Your task to perform on an android device: delete location history Image 0: 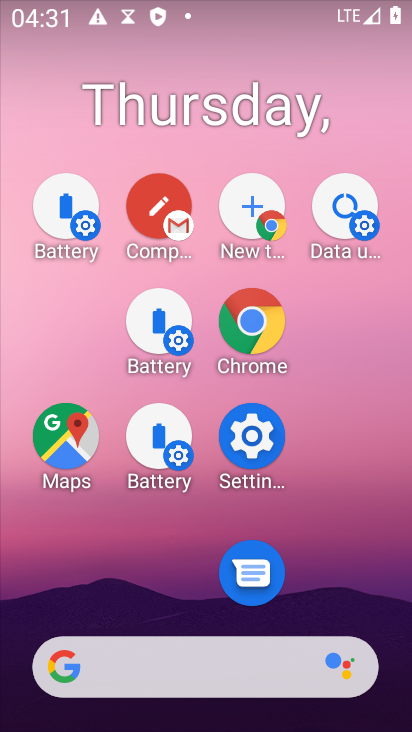
Step 0: drag from (242, 719) to (188, 140)
Your task to perform on an android device: delete location history Image 1: 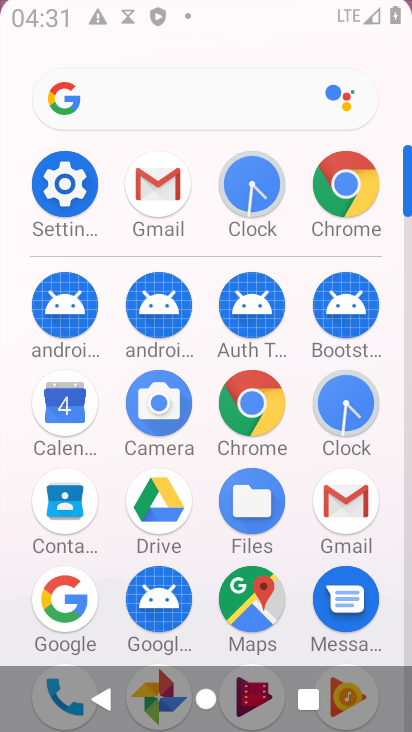
Step 1: drag from (235, 616) to (204, 232)
Your task to perform on an android device: delete location history Image 2: 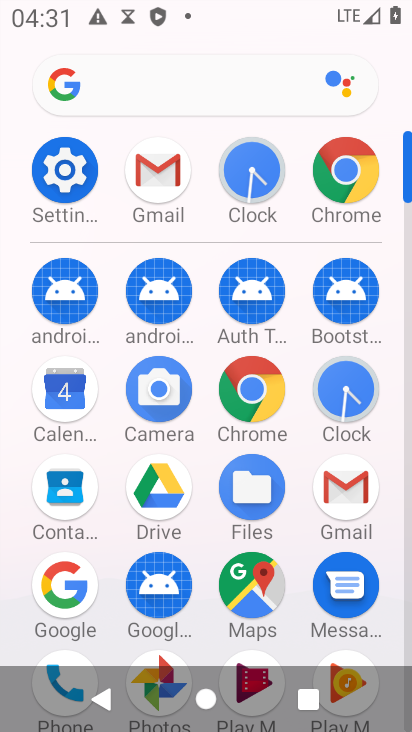
Step 2: drag from (289, 536) to (244, 173)
Your task to perform on an android device: delete location history Image 3: 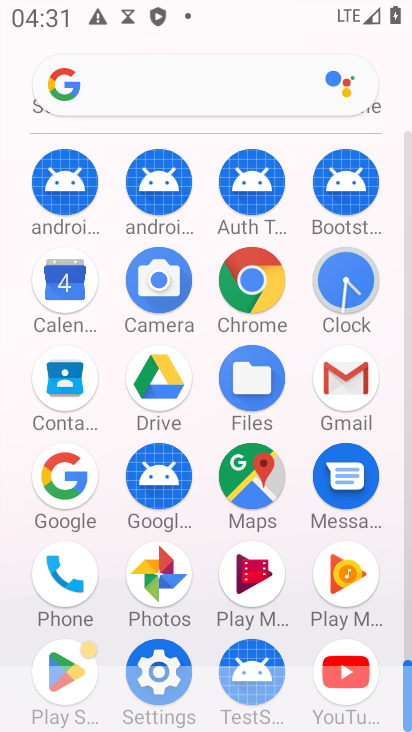
Step 3: click (155, 648)
Your task to perform on an android device: delete location history Image 4: 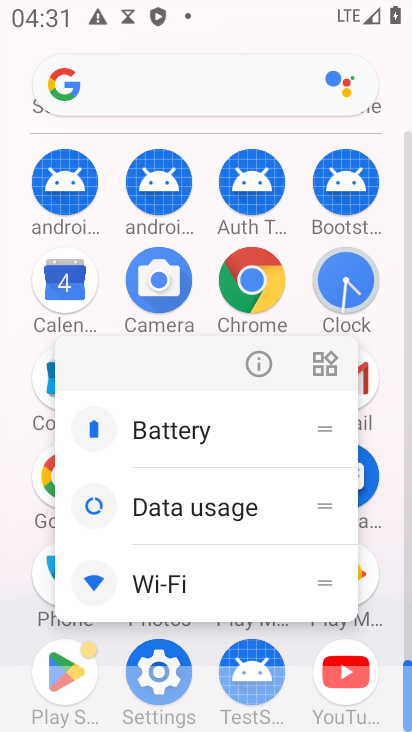
Step 4: click (156, 646)
Your task to perform on an android device: delete location history Image 5: 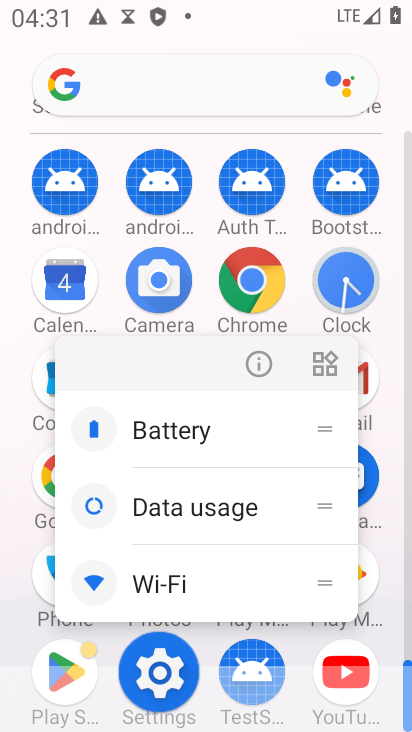
Step 5: click (163, 648)
Your task to perform on an android device: delete location history Image 6: 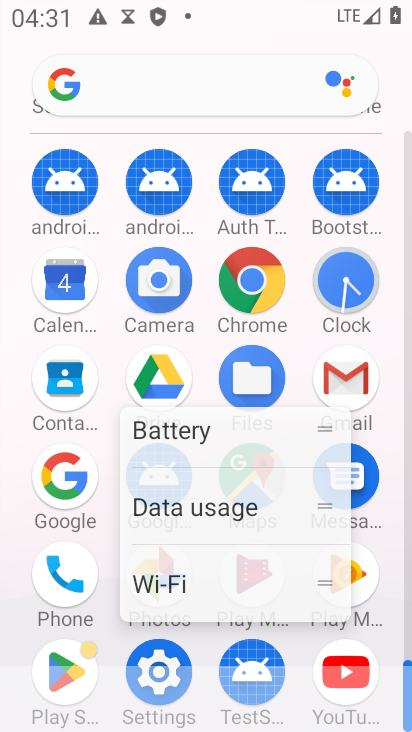
Step 6: click (163, 649)
Your task to perform on an android device: delete location history Image 7: 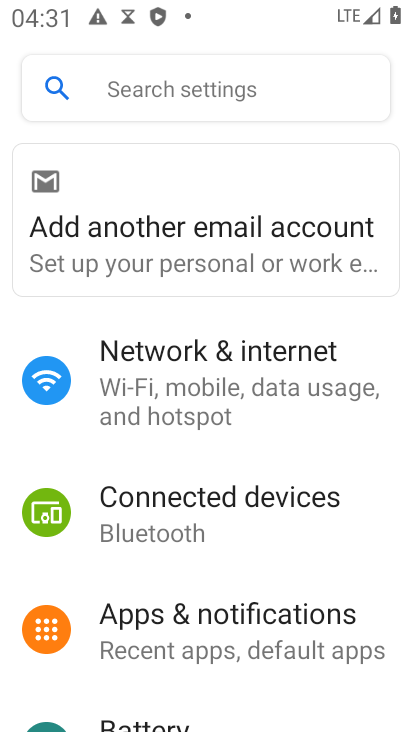
Step 7: drag from (229, 553) to (212, 334)
Your task to perform on an android device: delete location history Image 8: 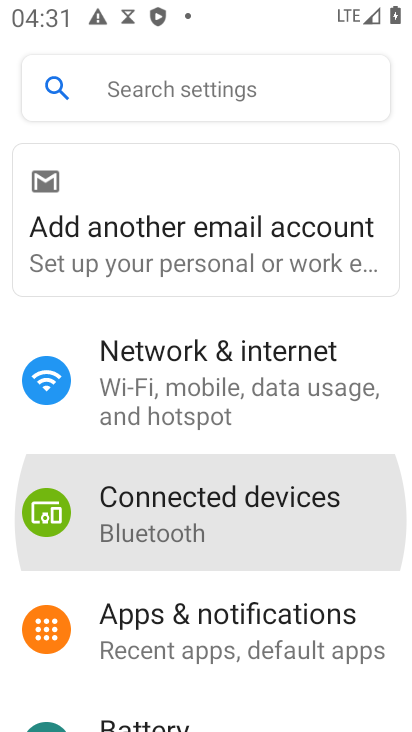
Step 8: drag from (206, 459) to (165, 156)
Your task to perform on an android device: delete location history Image 9: 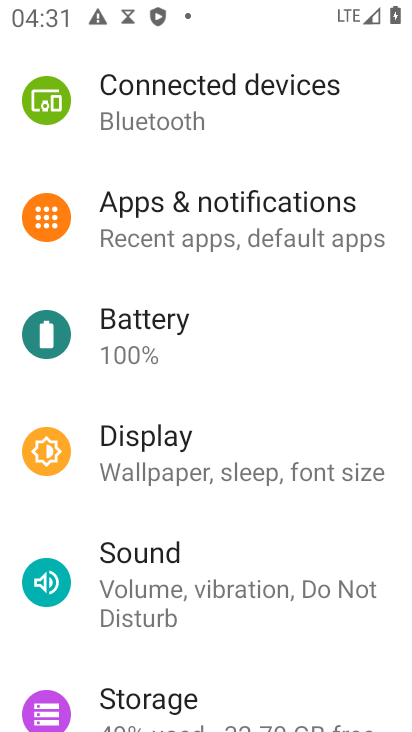
Step 9: drag from (183, 434) to (159, 257)
Your task to perform on an android device: delete location history Image 10: 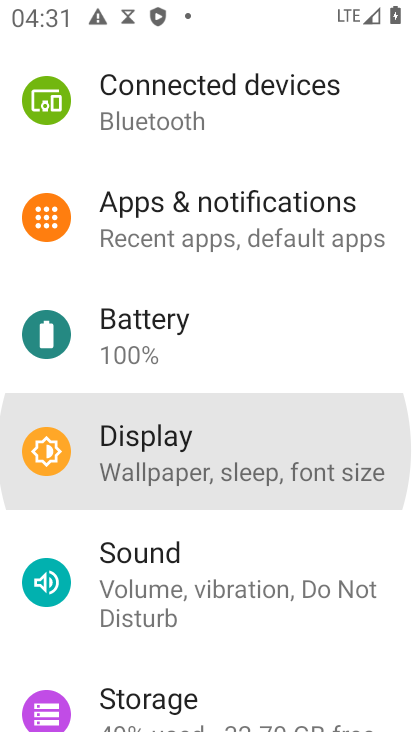
Step 10: drag from (208, 509) to (230, 295)
Your task to perform on an android device: delete location history Image 11: 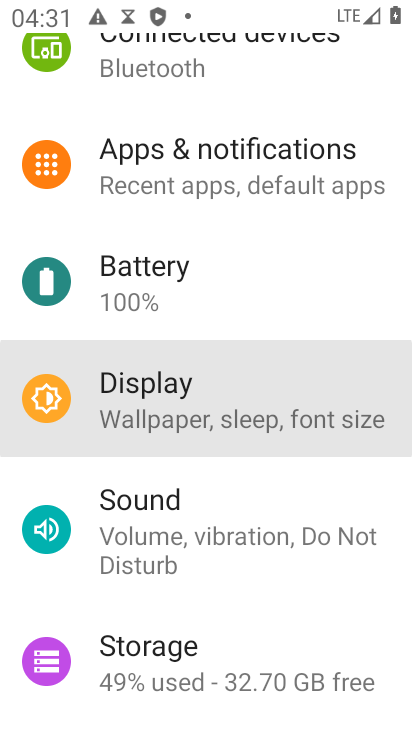
Step 11: drag from (165, 581) to (147, 307)
Your task to perform on an android device: delete location history Image 12: 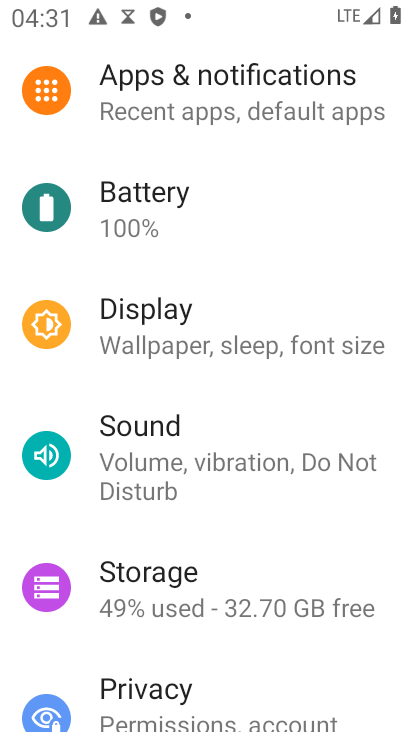
Step 12: drag from (156, 567) to (169, 325)
Your task to perform on an android device: delete location history Image 13: 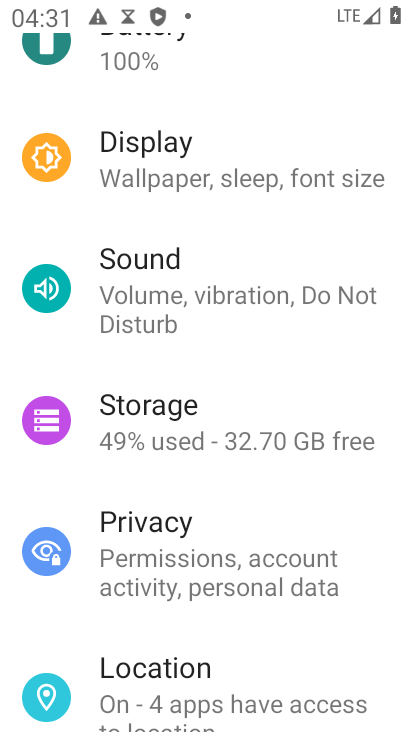
Step 13: drag from (225, 529) to (225, 288)
Your task to perform on an android device: delete location history Image 14: 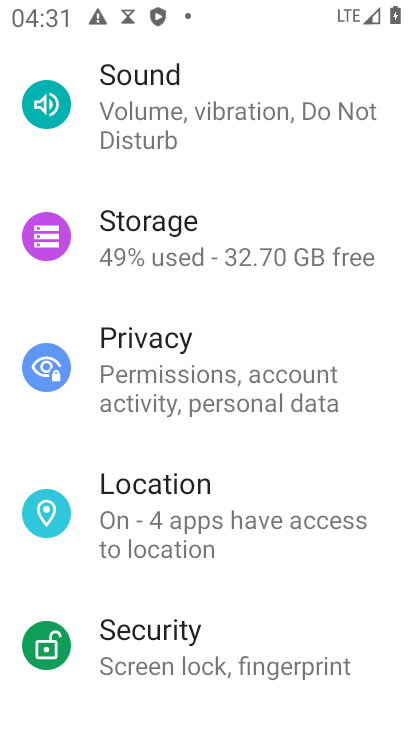
Step 14: drag from (281, 456) to (269, 222)
Your task to perform on an android device: delete location history Image 15: 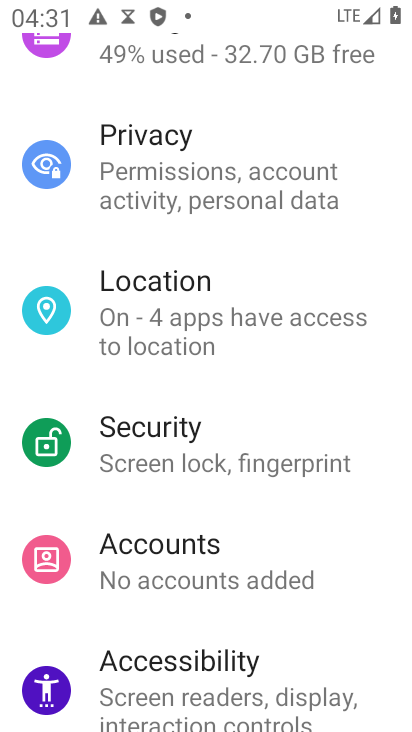
Step 15: click (147, 319)
Your task to perform on an android device: delete location history Image 16: 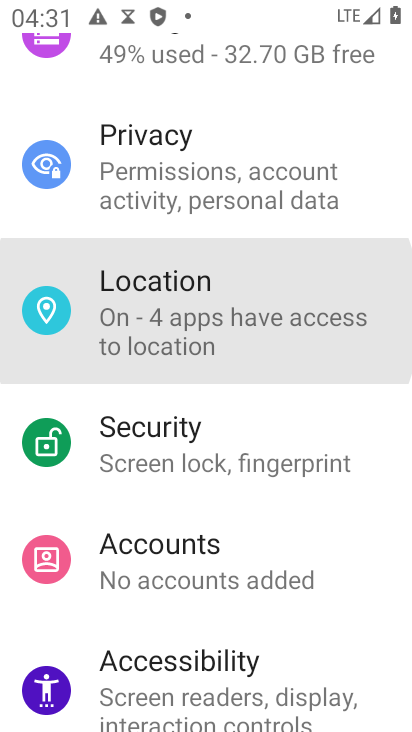
Step 16: click (147, 317)
Your task to perform on an android device: delete location history Image 17: 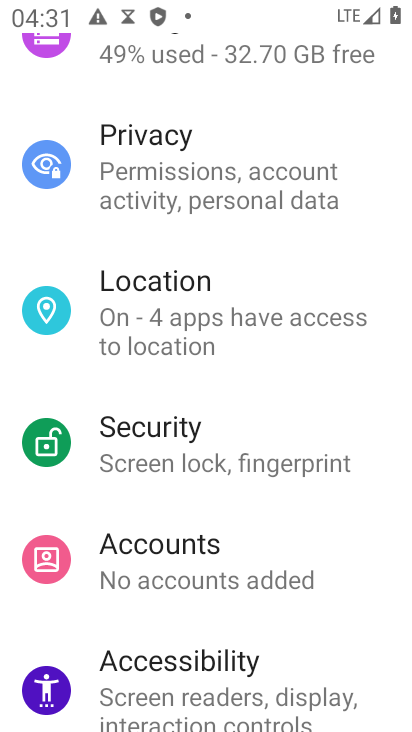
Step 17: click (146, 316)
Your task to perform on an android device: delete location history Image 18: 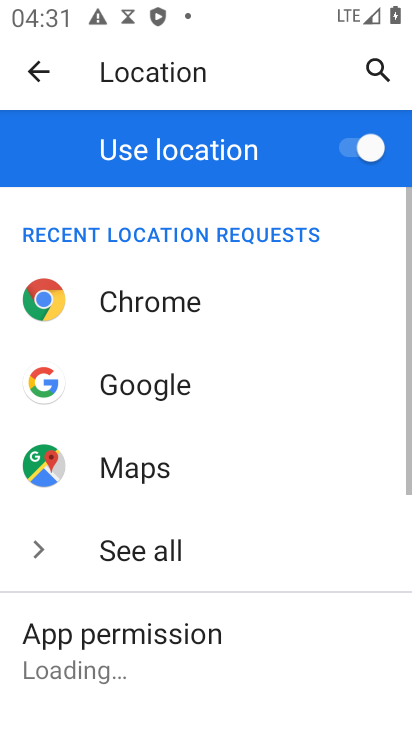
Step 18: drag from (205, 637) to (199, 163)
Your task to perform on an android device: delete location history Image 19: 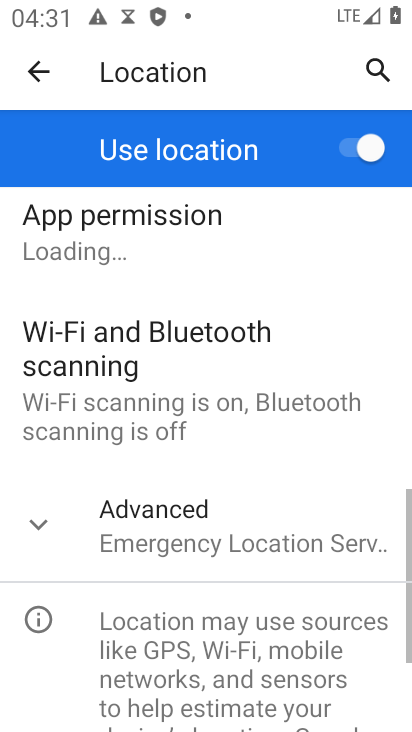
Step 19: drag from (236, 489) to (254, 167)
Your task to perform on an android device: delete location history Image 20: 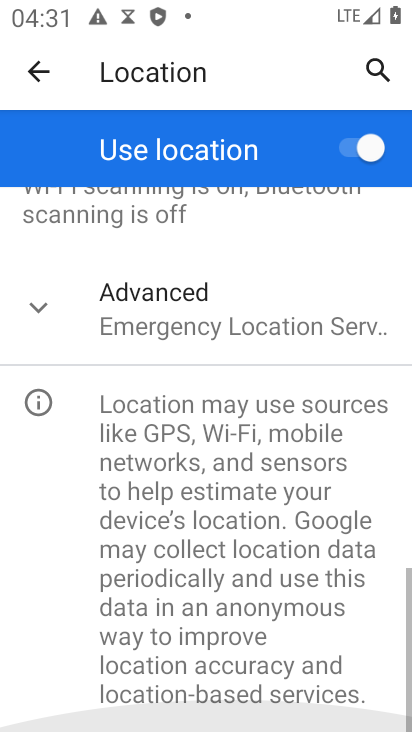
Step 20: drag from (246, 435) to (216, 284)
Your task to perform on an android device: delete location history Image 21: 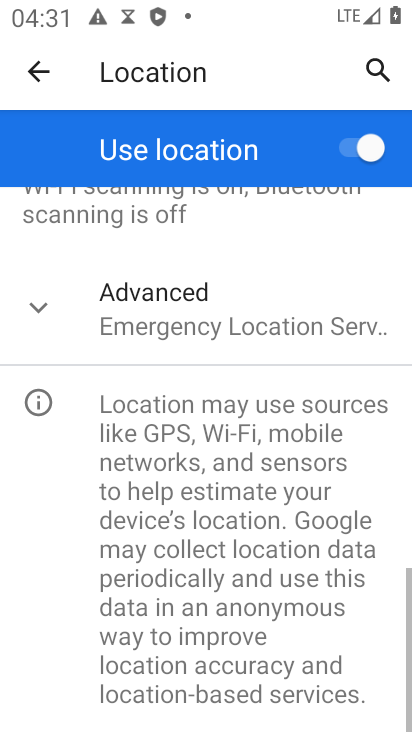
Step 21: click (174, 318)
Your task to perform on an android device: delete location history Image 22: 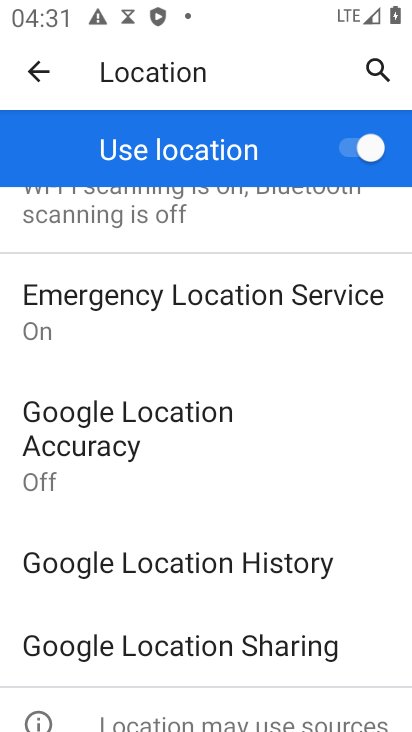
Step 22: click (232, 565)
Your task to perform on an android device: delete location history Image 23: 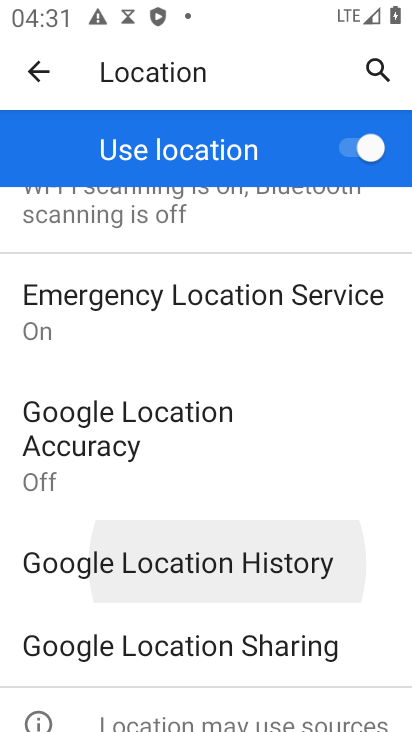
Step 23: click (232, 565)
Your task to perform on an android device: delete location history Image 24: 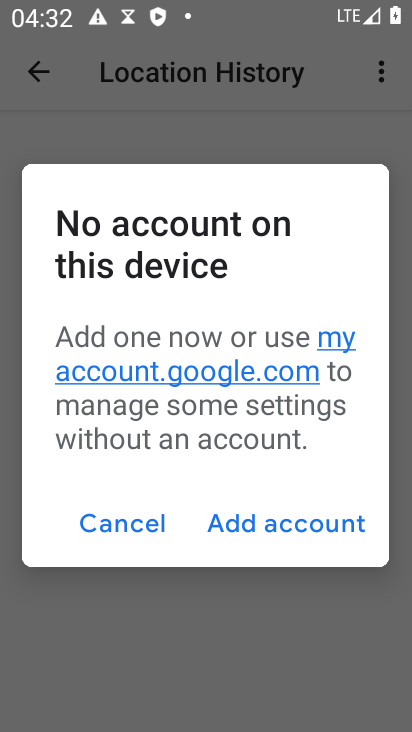
Step 24: click (120, 513)
Your task to perform on an android device: delete location history Image 25: 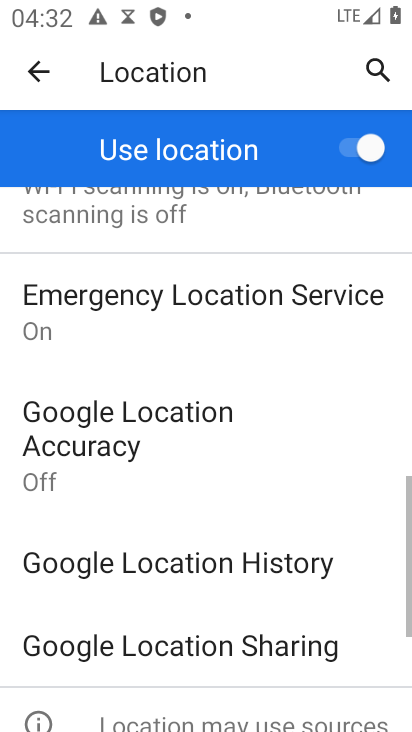
Step 25: task complete